Your task to perform on an android device: Play the last video I watched on Youtube Image 0: 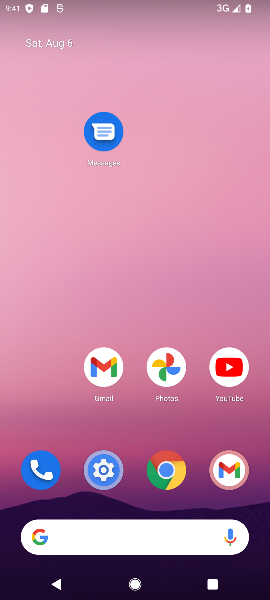
Step 0: drag from (154, 492) to (155, 85)
Your task to perform on an android device: Play the last video I watched on Youtube Image 1: 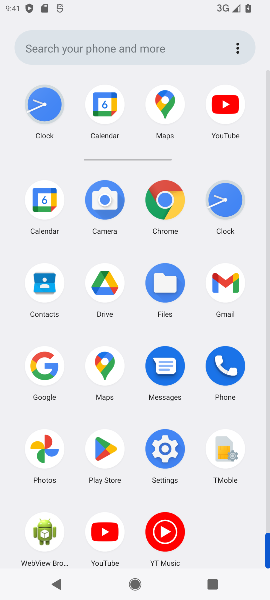
Step 1: drag from (116, 422) to (116, 134)
Your task to perform on an android device: Play the last video I watched on Youtube Image 2: 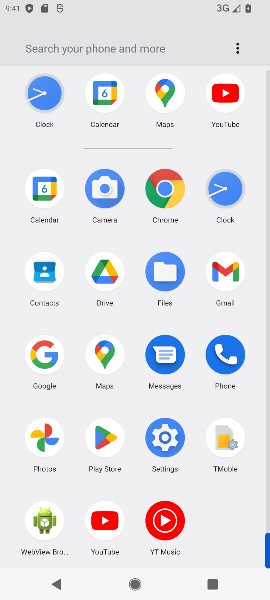
Step 2: click (117, 525)
Your task to perform on an android device: Play the last video I watched on Youtube Image 3: 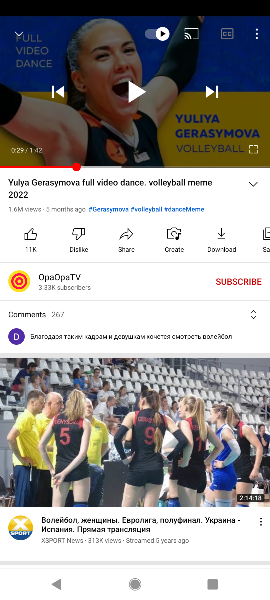
Step 3: drag from (173, 479) to (173, 161)
Your task to perform on an android device: Play the last video I watched on Youtube Image 4: 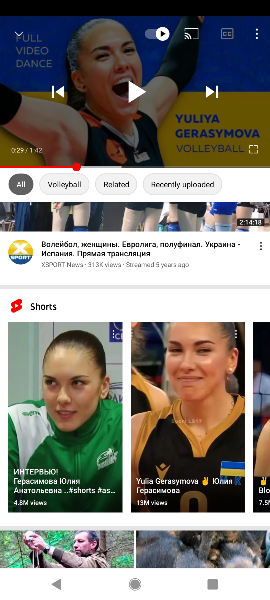
Step 4: drag from (170, 219) to (174, 525)
Your task to perform on an android device: Play the last video I watched on Youtube Image 5: 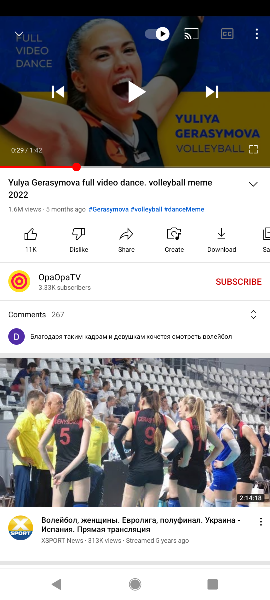
Step 5: drag from (175, 126) to (189, 508)
Your task to perform on an android device: Play the last video I watched on Youtube Image 6: 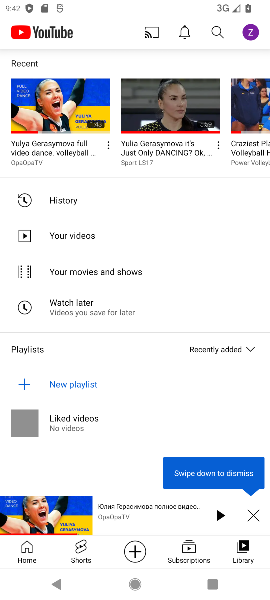
Step 6: click (240, 553)
Your task to perform on an android device: Play the last video I watched on Youtube Image 7: 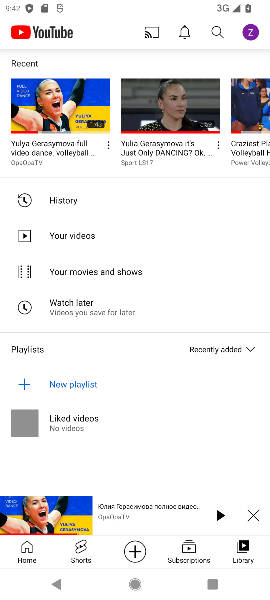
Step 7: click (66, 521)
Your task to perform on an android device: Play the last video I watched on Youtube Image 8: 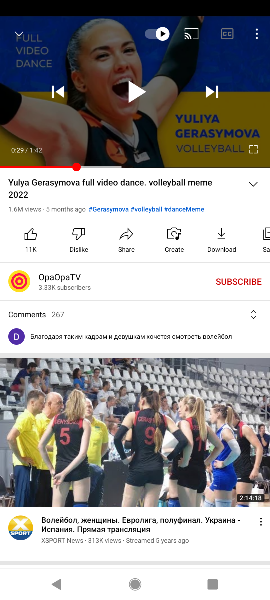
Step 8: click (134, 85)
Your task to perform on an android device: Play the last video I watched on Youtube Image 9: 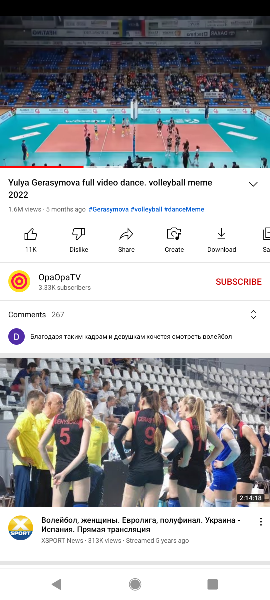
Step 9: task complete